Your task to perform on an android device: add a label to a message in the gmail app Image 0: 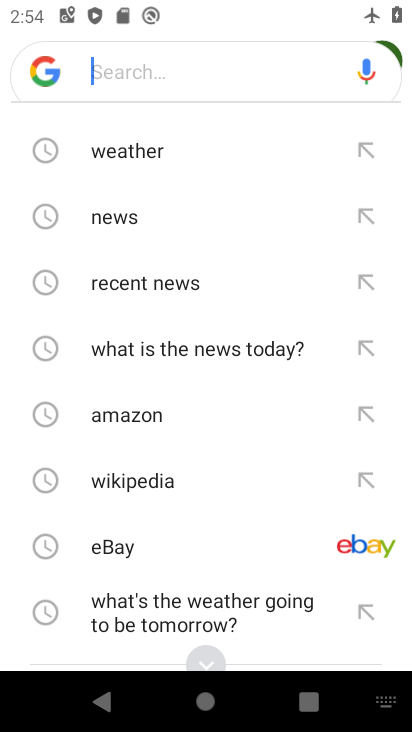
Step 0: press home button
Your task to perform on an android device: add a label to a message in the gmail app Image 1: 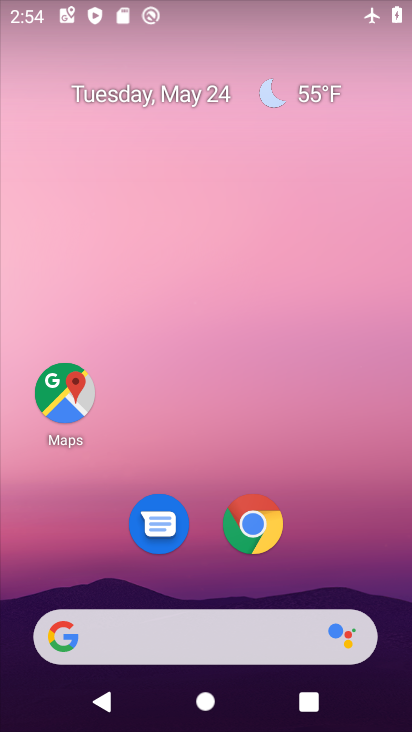
Step 1: drag from (182, 435) to (189, 52)
Your task to perform on an android device: add a label to a message in the gmail app Image 2: 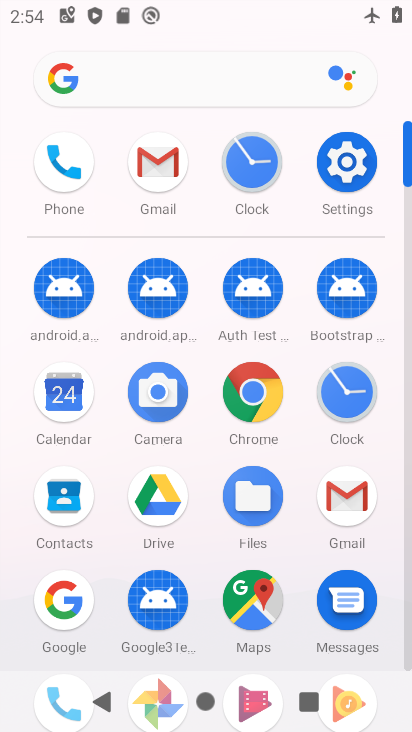
Step 2: click (154, 150)
Your task to perform on an android device: add a label to a message in the gmail app Image 3: 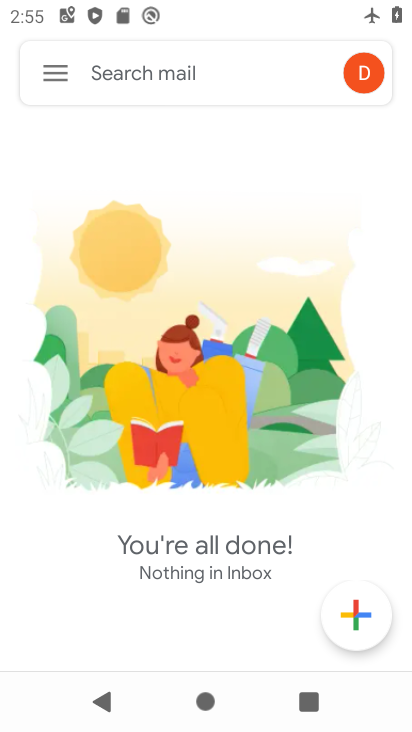
Step 3: click (54, 60)
Your task to perform on an android device: add a label to a message in the gmail app Image 4: 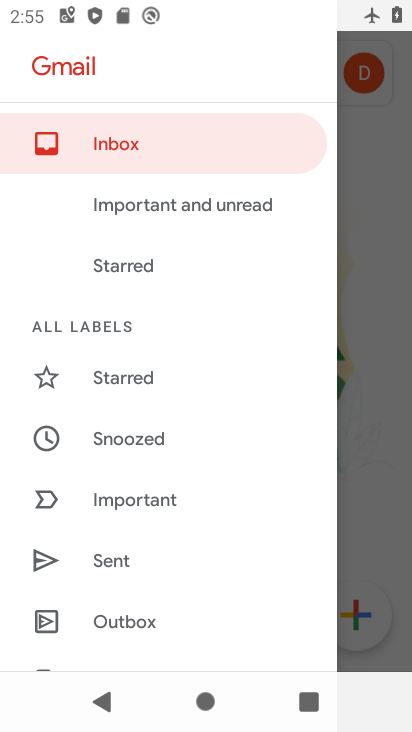
Step 4: drag from (146, 540) to (195, 169)
Your task to perform on an android device: add a label to a message in the gmail app Image 5: 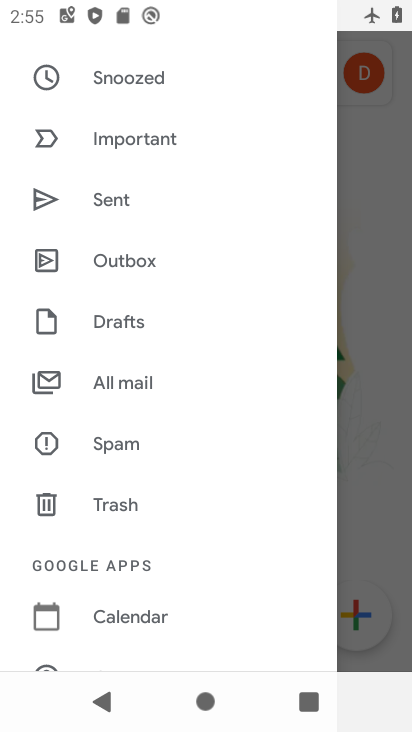
Step 5: click (145, 373)
Your task to perform on an android device: add a label to a message in the gmail app Image 6: 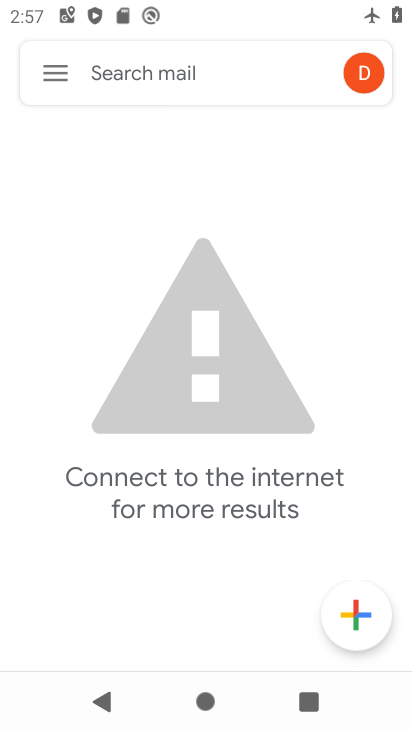
Step 6: task complete